Your task to perform on an android device: Open eBay Image 0: 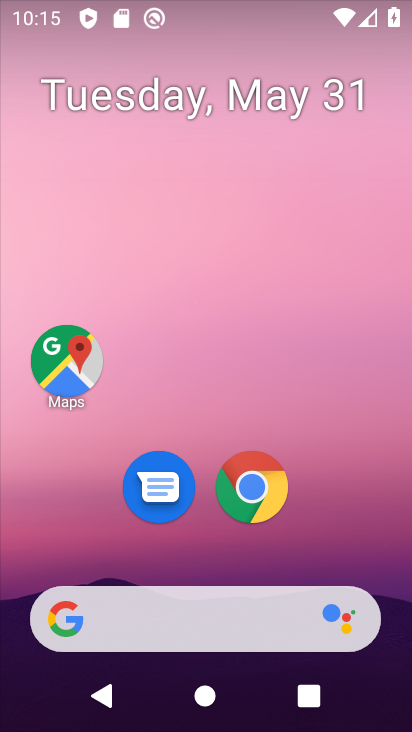
Step 0: click (254, 487)
Your task to perform on an android device: Open eBay Image 1: 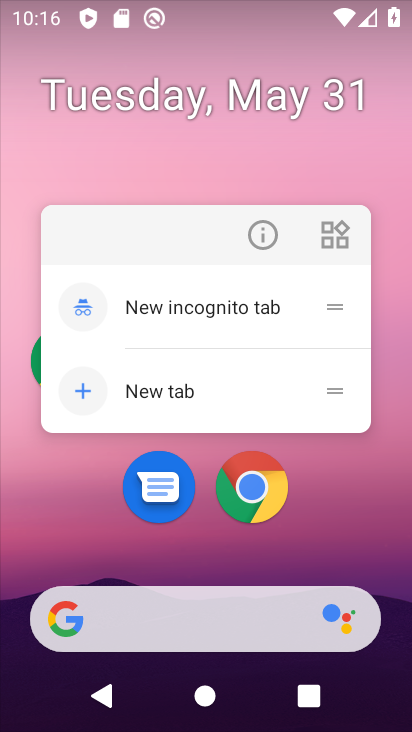
Step 1: click (278, 528)
Your task to perform on an android device: Open eBay Image 2: 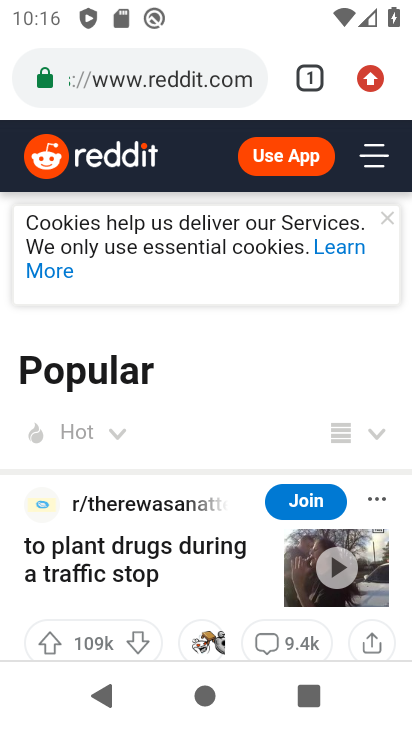
Step 2: drag from (311, 85) to (388, 80)
Your task to perform on an android device: Open eBay Image 3: 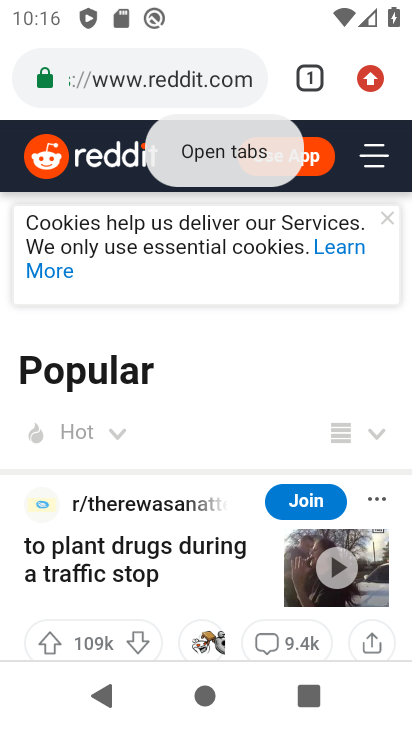
Step 3: drag from (388, 80) to (274, 239)
Your task to perform on an android device: Open eBay Image 4: 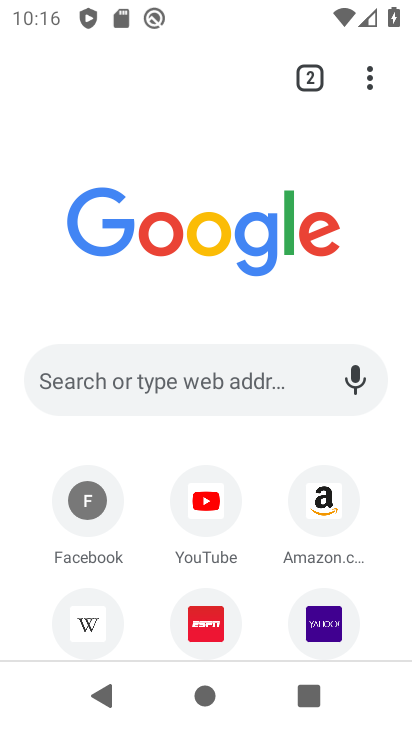
Step 4: drag from (261, 541) to (319, 293)
Your task to perform on an android device: Open eBay Image 5: 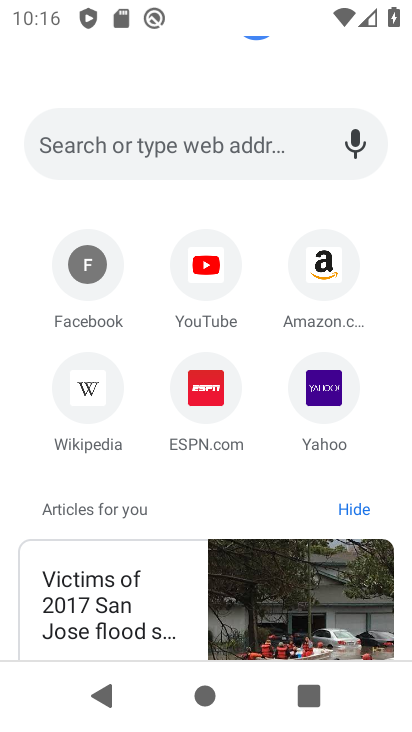
Step 5: click (155, 163)
Your task to perform on an android device: Open eBay Image 6: 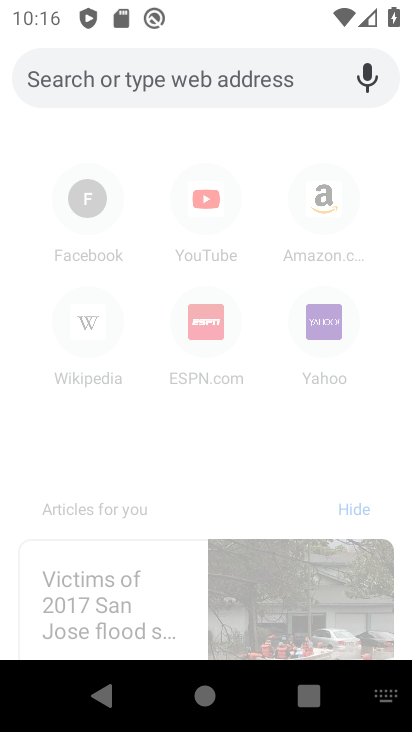
Step 6: type "eBay"
Your task to perform on an android device: Open eBay Image 7: 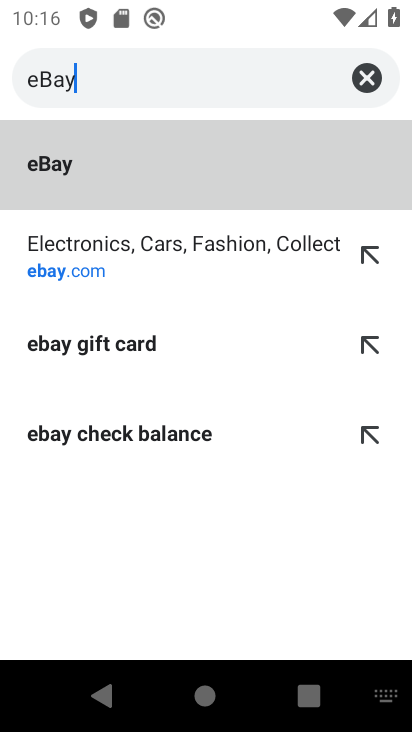
Step 7: click (185, 267)
Your task to perform on an android device: Open eBay Image 8: 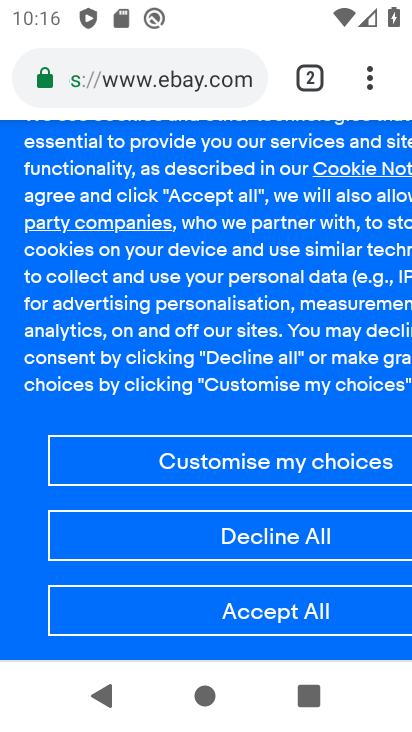
Step 8: drag from (252, 600) to (332, 256)
Your task to perform on an android device: Open eBay Image 9: 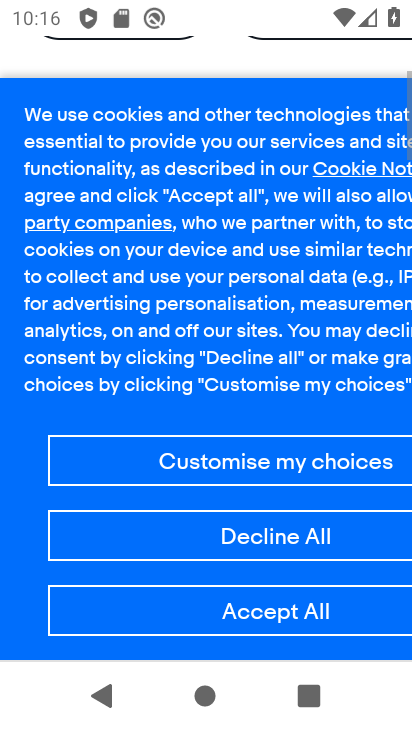
Step 9: click (260, 639)
Your task to perform on an android device: Open eBay Image 10: 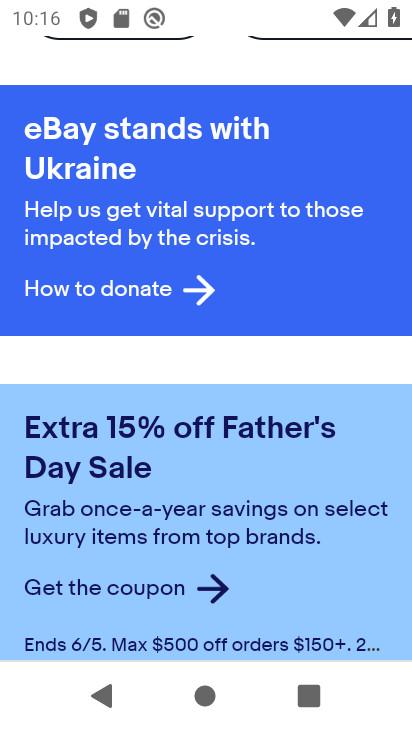
Step 10: task complete